Your task to perform on an android device: check the backup settings in the google photos Image 0: 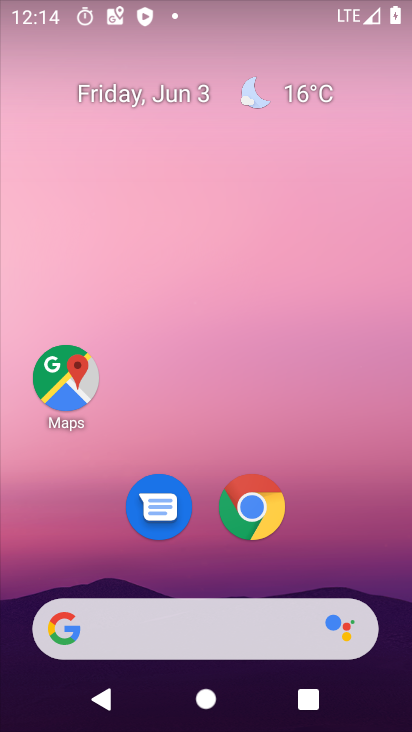
Step 0: click (395, 622)
Your task to perform on an android device: check the backup settings in the google photos Image 1: 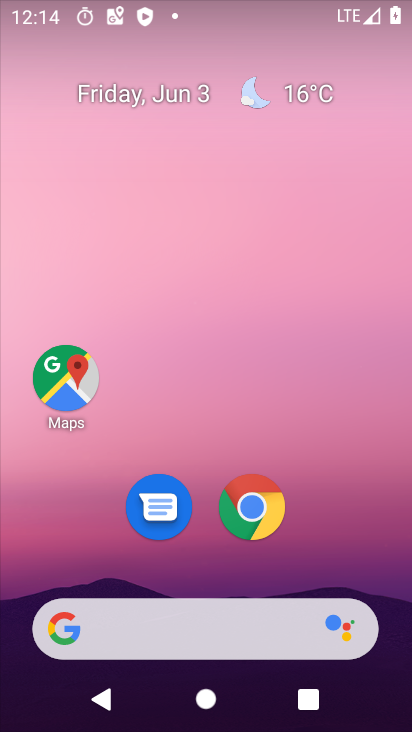
Step 1: drag from (349, 335) to (245, 16)
Your task to perform on an android device: check the backup settings in the google photos Image 2: 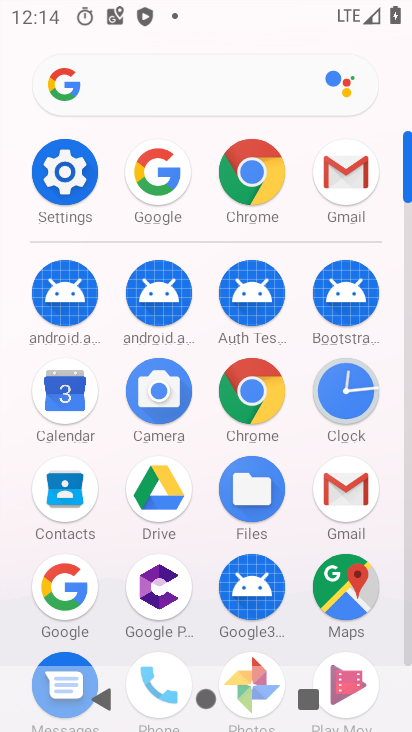
Step 2: click (246, 650)
Your task to perform on an android device: check the backup settings in the google photos Image 3: 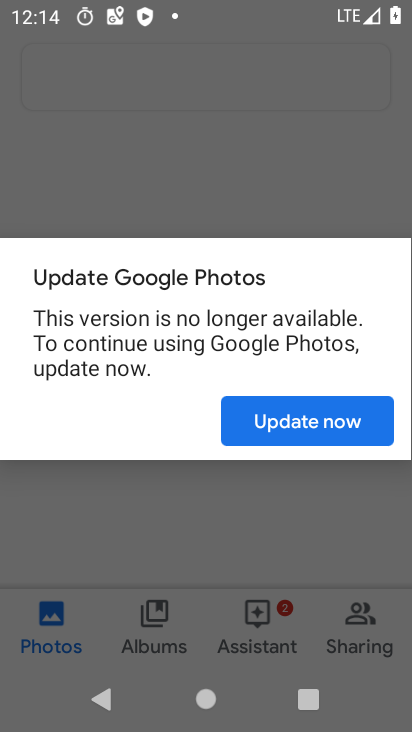
Step 3: click (274, 413)
Your task to perform on an android device: check the backup settings in the google photos Image 4: 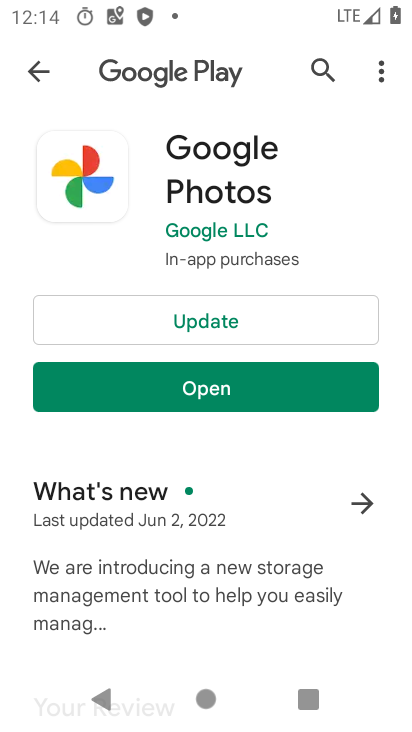
Step 4: click (217, 309)
Your task to perform on an android device: check the backup settings in the google photos Image 5: 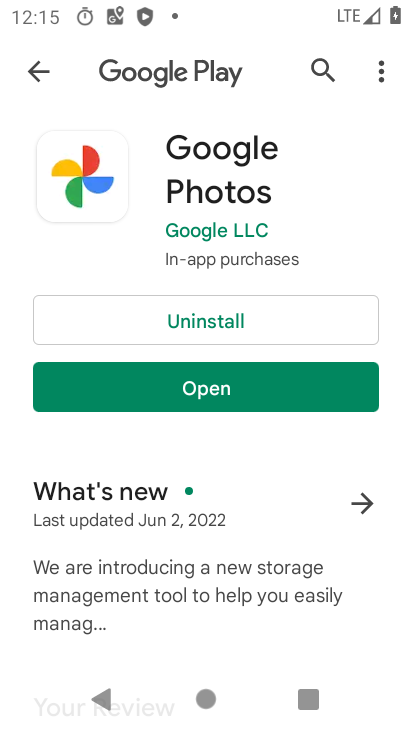
Step 5: click (235, 405)
Your task to perform on an android device: check the backup settings in the google photos Image 6: 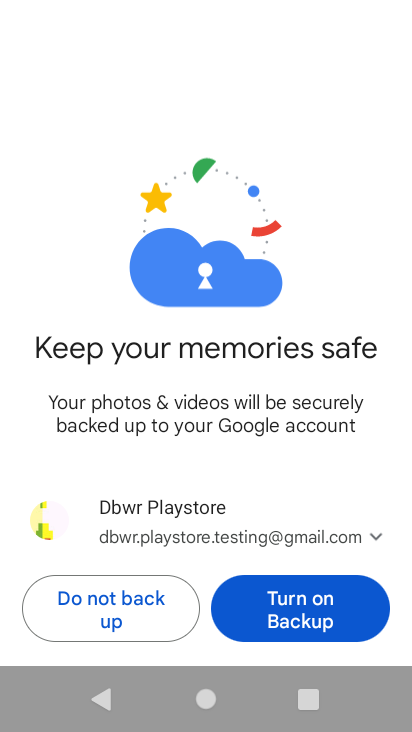
Step 6: click (249, 611)
Your task to perform on an android device: check the backup settings in the google photos Image 7: 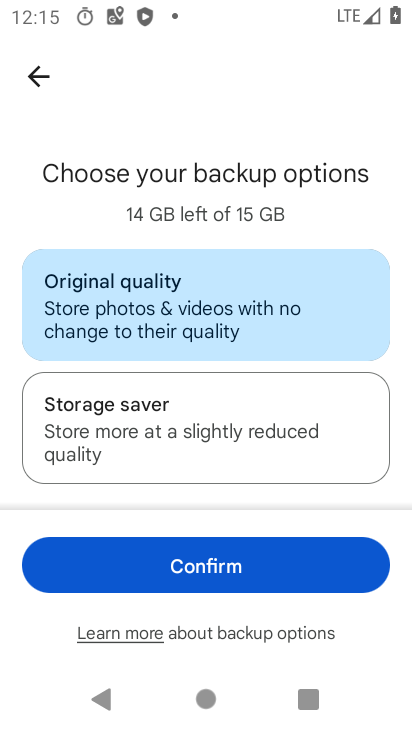
Step 7: click (210, 576)
Your task to perform on an android device: check the backup settings in the google photos Image 8: 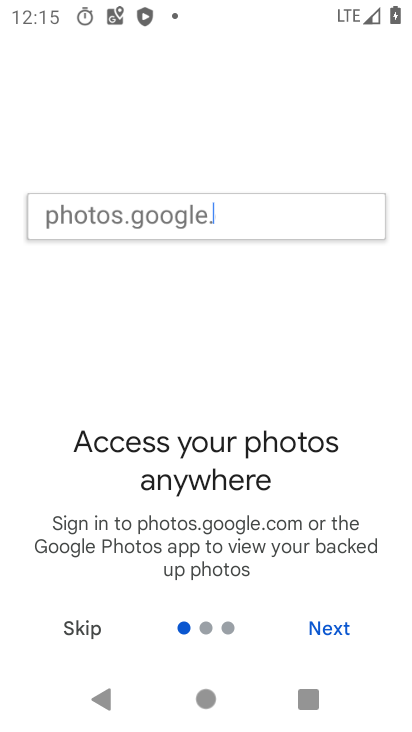
Step 8: click (340, 629)
Your task to perform on an android device: check the backup settings in the google photos Image 9: 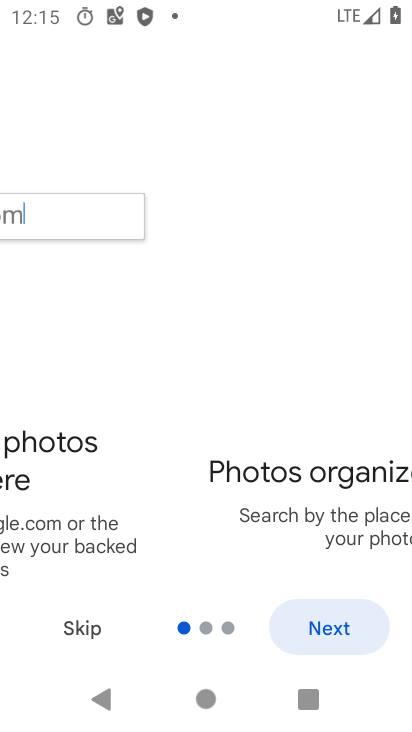
Step 9: click (340, 629)
Your task to perform on an android device: check the backup settings in the google photos Image 10: 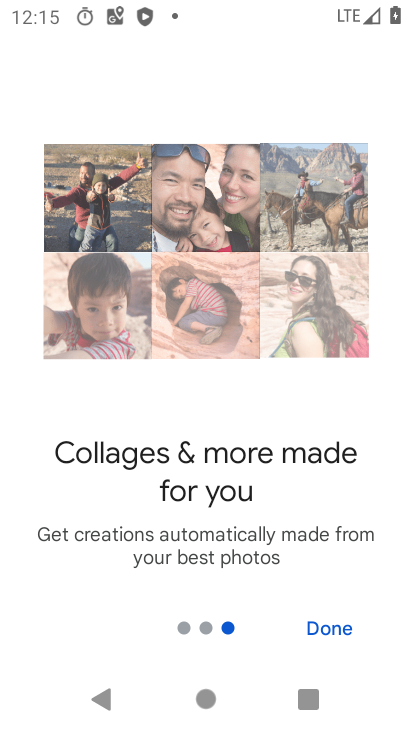
Step 10: click (340, 629)
Your task to perform on an android device: check the backup settings in the google photos Image 11: 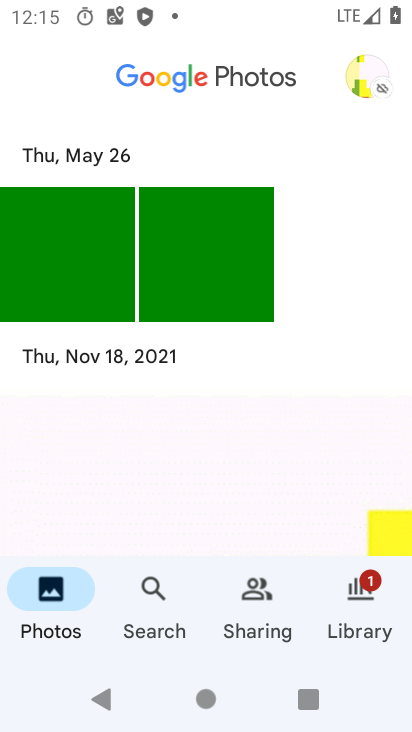
Step 11: click (371, 58)
Your task to perform on an android device: check the backup settings in the google photos Image 12: 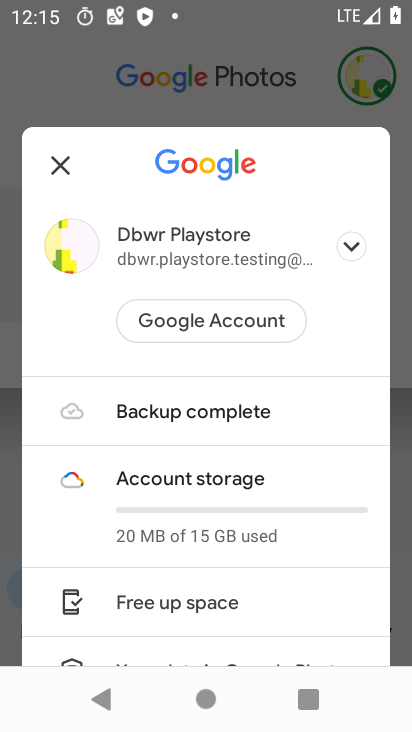
Step 12: click (200, 436)
Your task to perform on an android device: check the backup settings in the google photos Image 13: 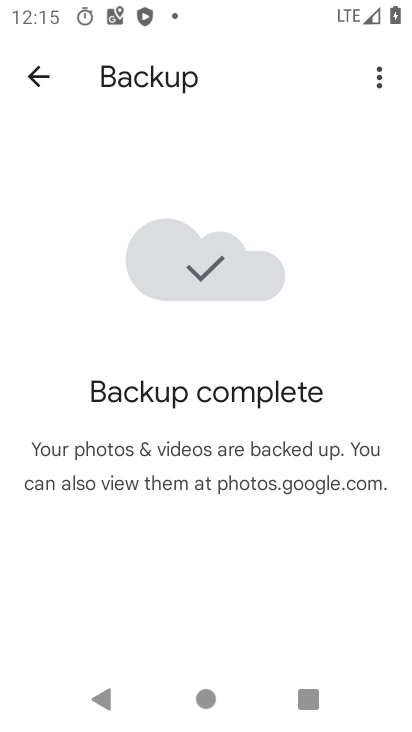
Step 13: task complete